Your task to perform on an android device: refresh tabs in the chrome app Image 0: 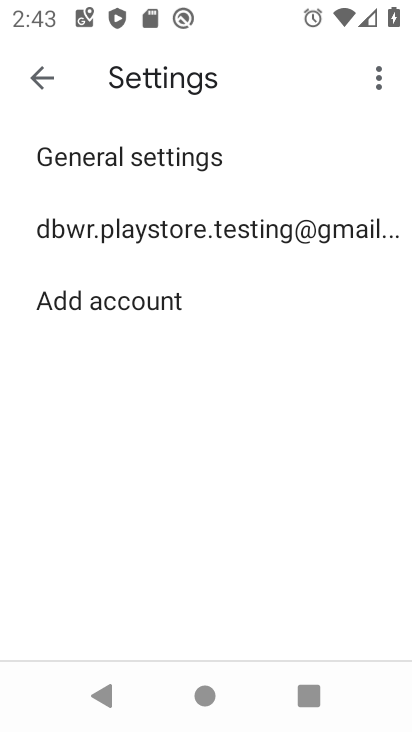
Step 0: press home button
Your task to perform on an android device: refresh tabs in the chrome app Image 1: 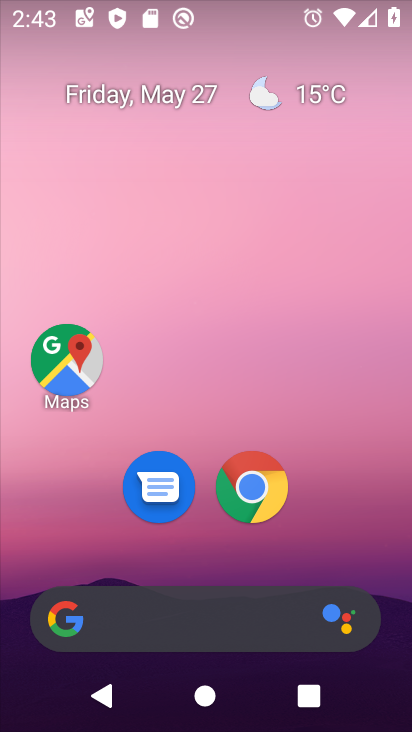
Step 1: click (291, 454)
Your task to perform on an android device: refresh tabs in the chrome app Image 2: 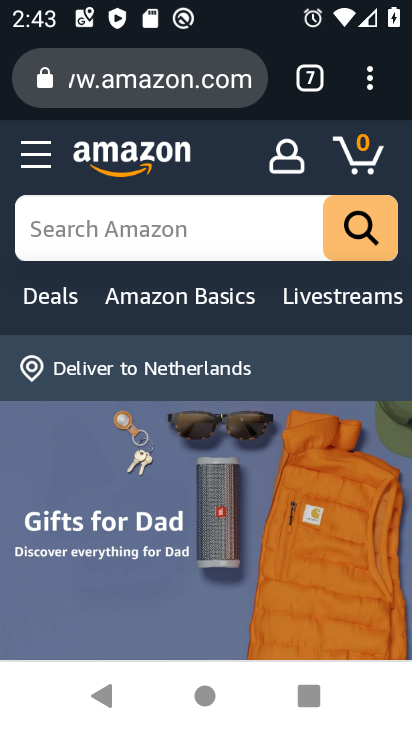
Step 2: click (382, 81)
Your task to perform on an android device: refresh tabs in the chrome app Image 3: 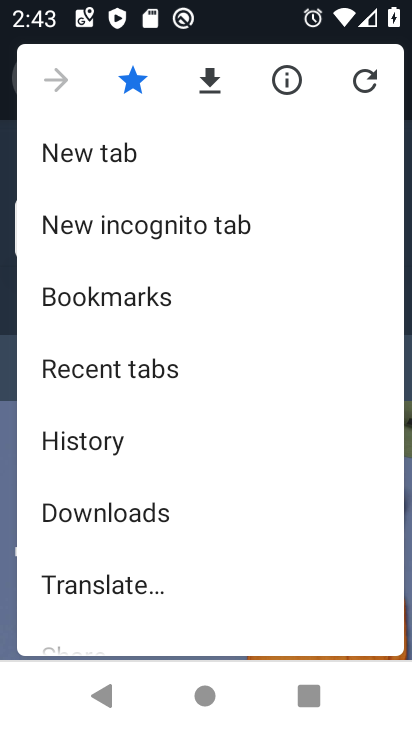
Step 3: click (352, 81)
Your task to perform on an android device: refresh tabs in the chrome app Image 4: 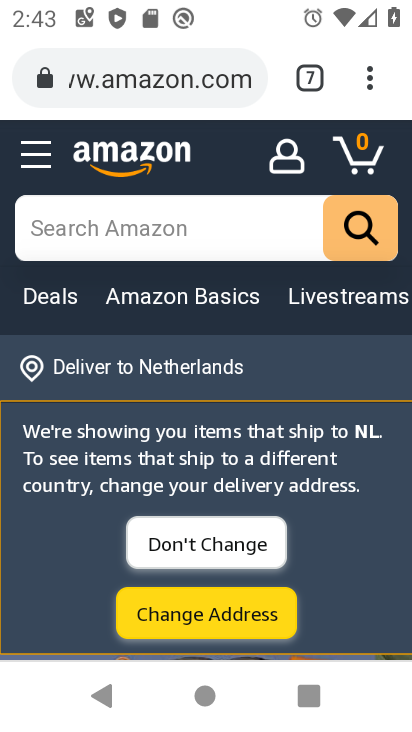
Step 4: task complete